Your task to perform on an android device: turn on showing notifications on the lock screen Image 0: 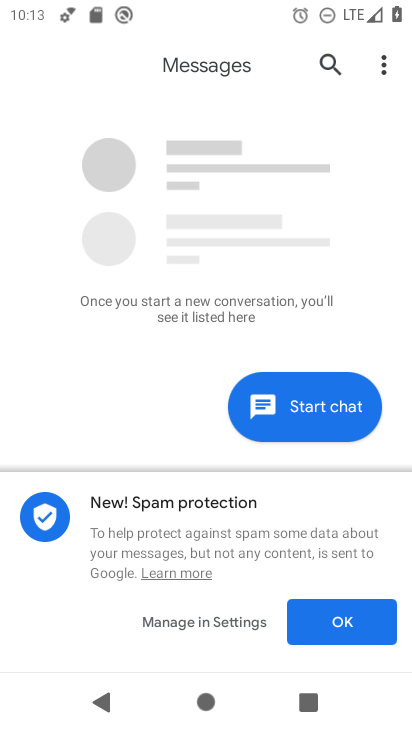
Step 0: press home button
Your task to perform on an android device: turn on showing notifications on the lock screen Image 1: 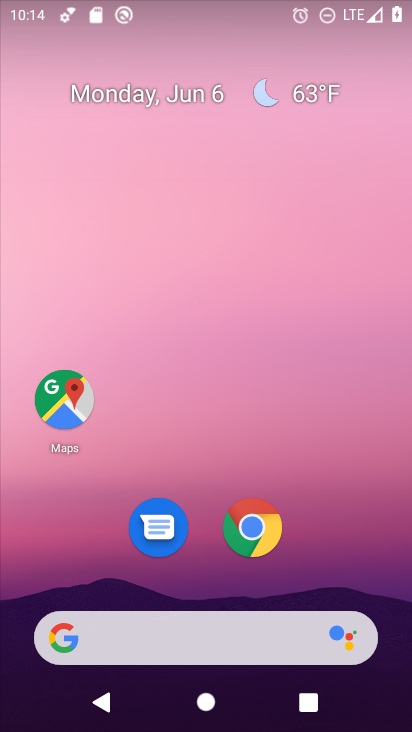
Step 1: drag from (370, 560) to (385, 168)
Your task to perform on an android device: turn on showing notifications on the lock screen Image 2: 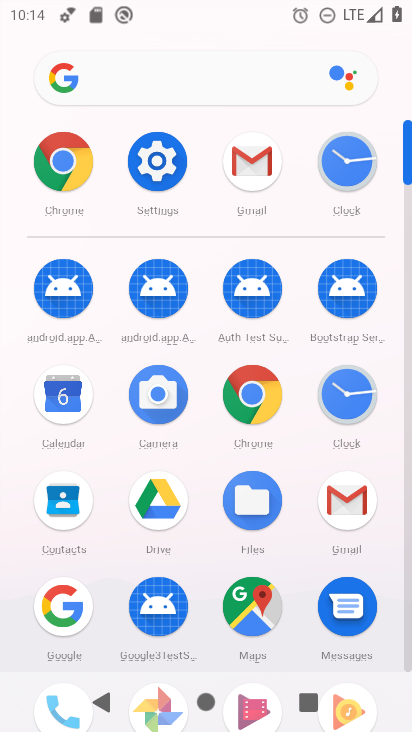
Step 2: click (156, 172)
Your task to perform on an android device: turn on showing notifications on the lock screen Image 3: 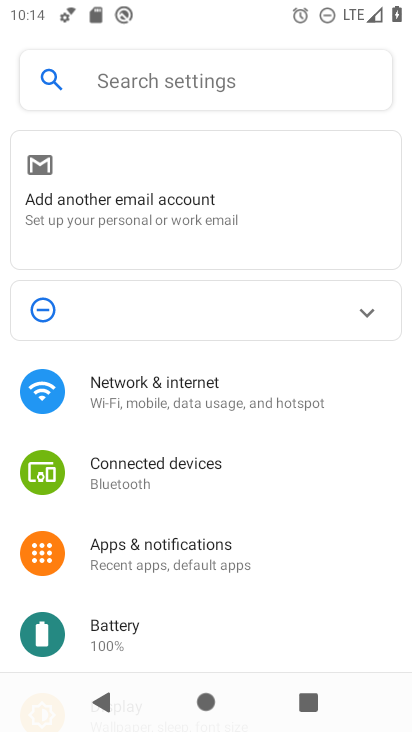
Step 3: drag from (332, 505) to (337, 296)
Your task to perform on an android device: turn on showing notifications on the lock screen Image 4: 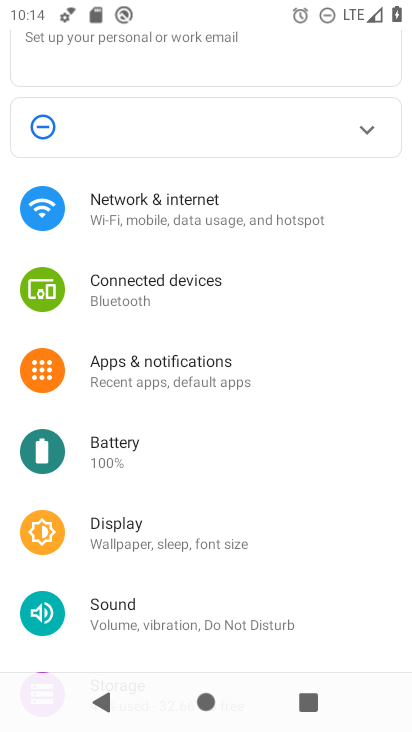
Step 4: drag from (313, 456) to (296, 309)
Your task to perform on an android device: turn on showing notifications on the lock screen Image 5: 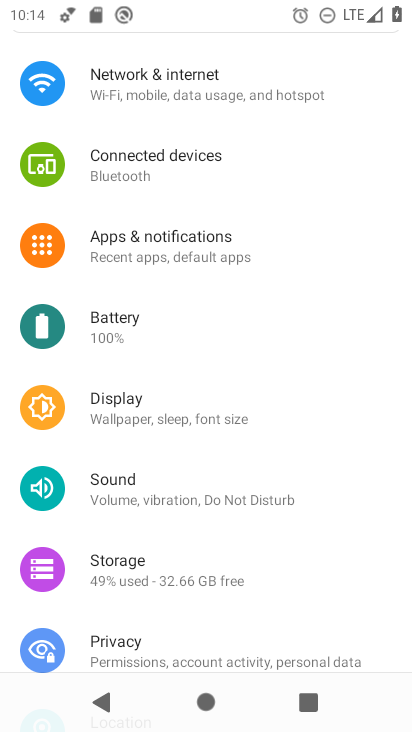
Step 5: click (204, 229)
Your task to perform on an android device: turn on showing notifications on the lock screen Image 6: 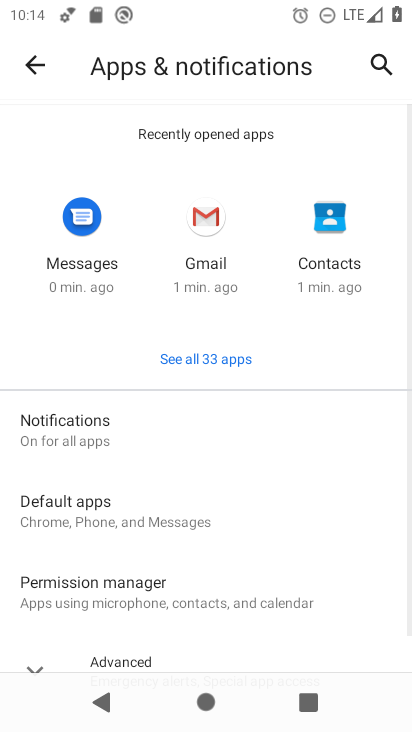
Step 6: click (141, 444)
Your task to perform on an android device: turn on showing notifications on the lock screen Image 7: 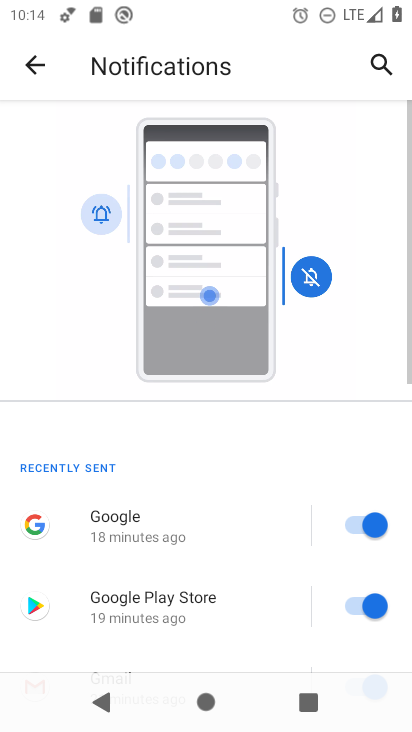
Step 7: drag from (245, 530) to (260, 361)
Your task to perform on an android device: turn on showing notifications on the lock screen Image 8: 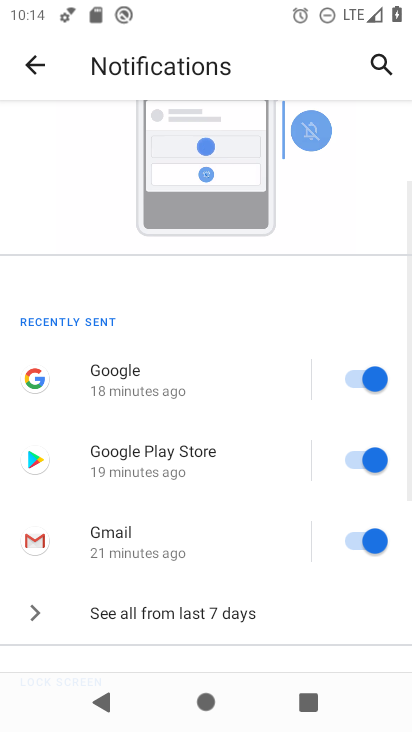
Step 8: drag from (243, 535) to (247, 314)
Your task to perform on an android device: turn on showing notifications on the lock screen Image 9: 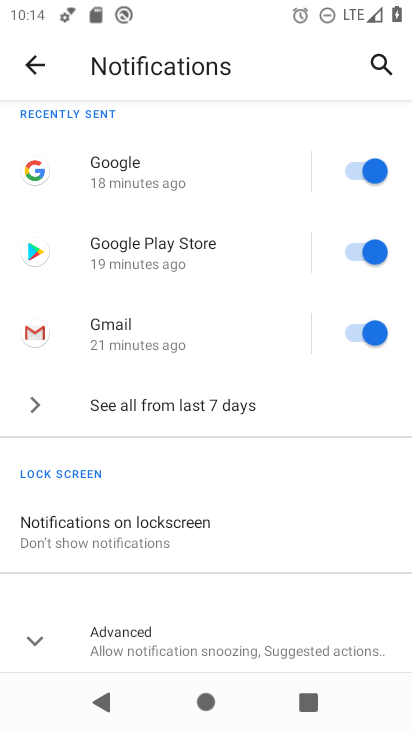
Step 9: click (170, 542)
Your task to perform on an android device: turn on showing notifications on the lock screen Image 10: 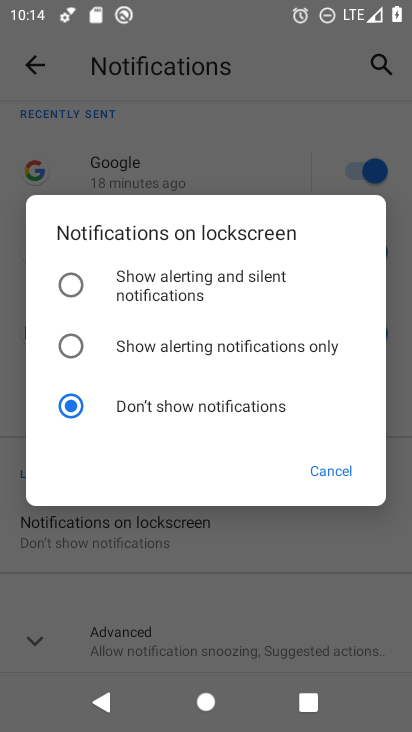
Step 10: click (102, 293)
Your task to perform on an android device: turn on showing notifications on the lock screen Image 11: 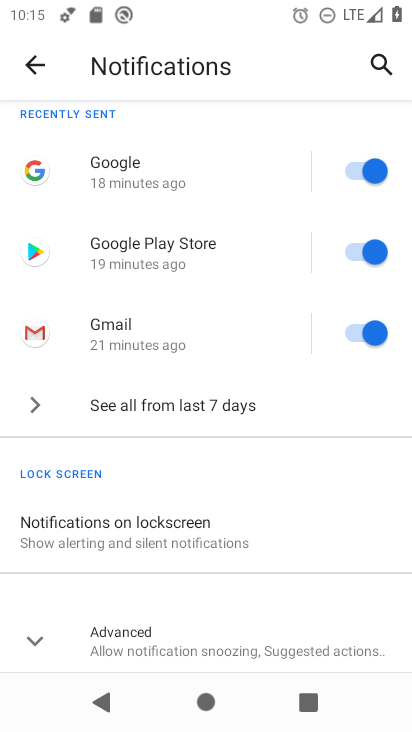
Step 11: click (204, 539)
Your task to perform on an android device: turn on showing notifications on the lock screen Image 12: 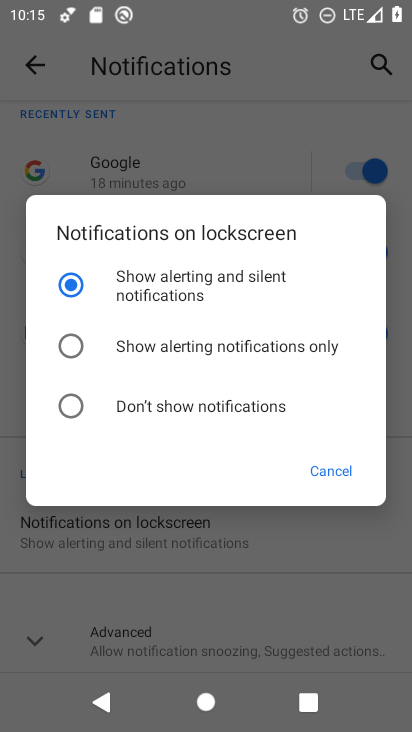
Step 12: task complete